Your task to perform on an android device: star an email in the gmail app Image 0: 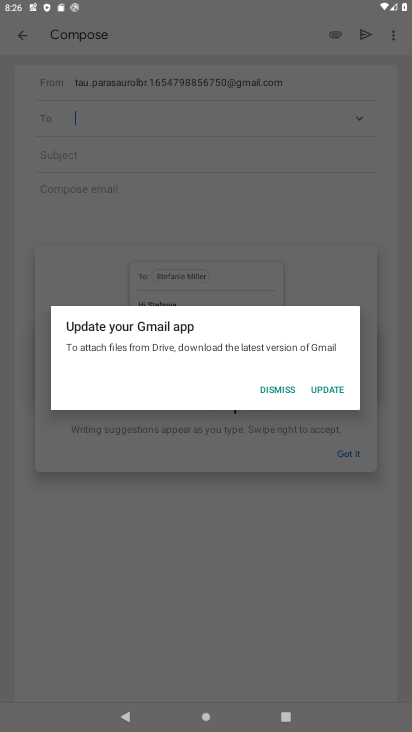
Step 0: press home button
Your task to perform on an android device: star an email in the gmail app Image 1: 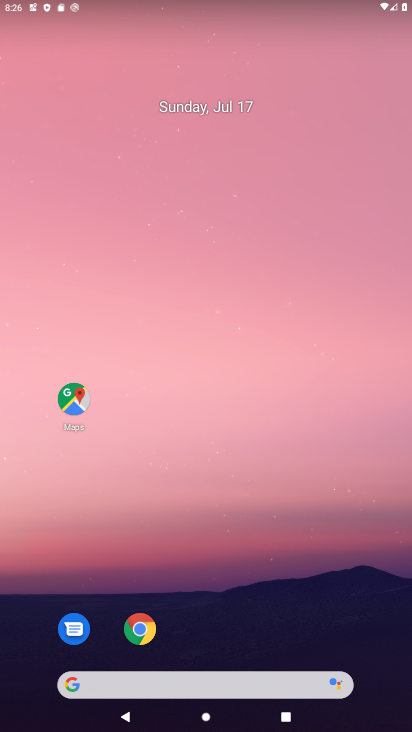
Step 1: drag from (244, 726) to (242, 100)
Your task to perform on an android device: star an email in the gmail app Image 2: 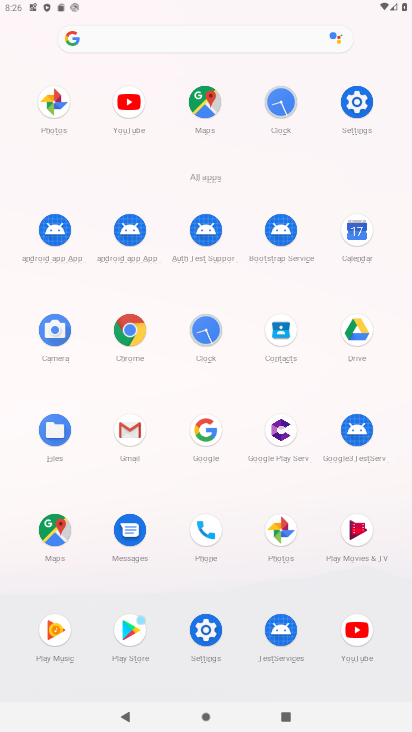
Step 2: click (135, 432)
Your task to perform on an android device: star an email in the gmail app Image 3: 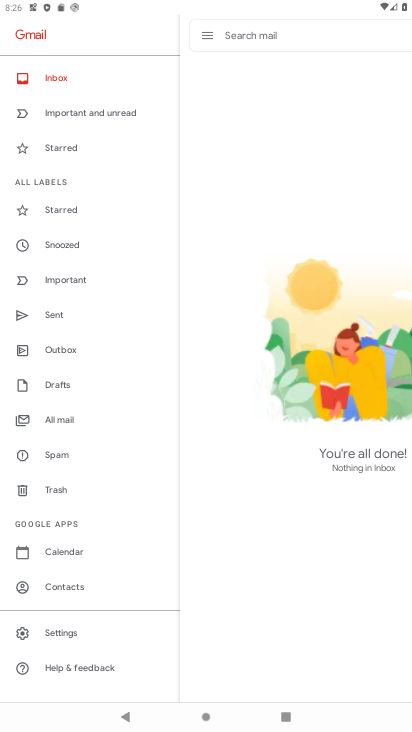
Step 3: click (71, 80)
Your task to perform on an android device: star an email in the gmail app Image 4: 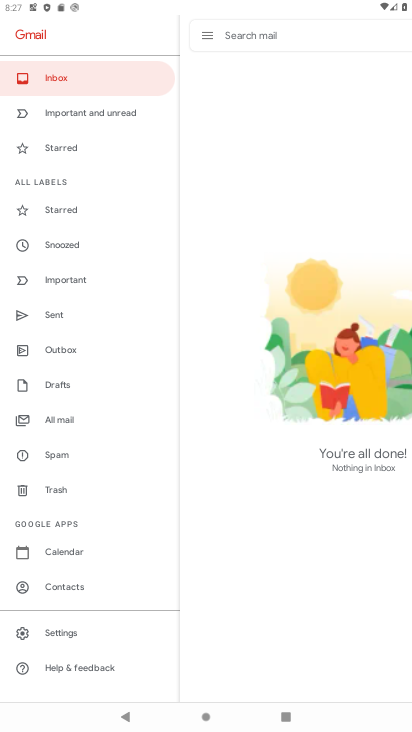
Step 4: task complete